Your task to perform on an android device: open chrome and create a bookmark for the current page Image 0: 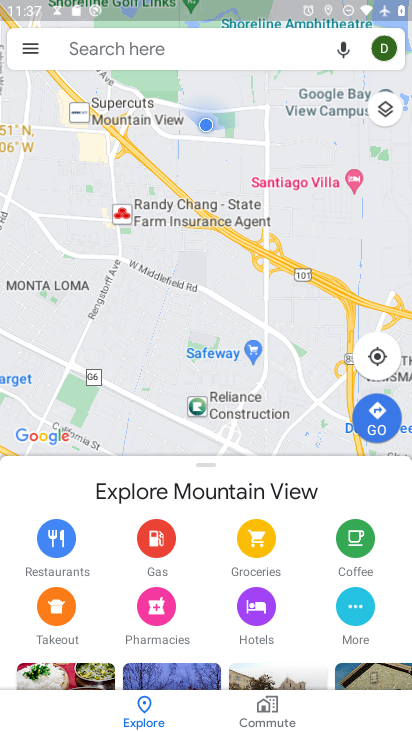
Step 0: press home button
Your task to perform on an android device: open chrome and create a bookmark for the current page Image 1: 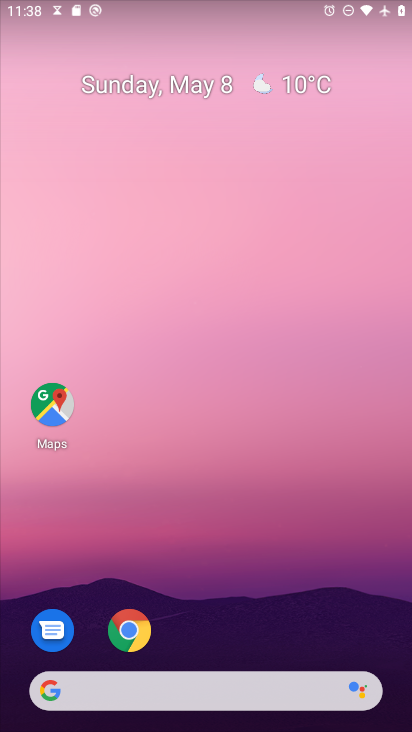
Step 1: drag from (137, 674) to (318, 171)
Your task to perform on an android device: open chrome and create a bookmark for the current page Image 2: 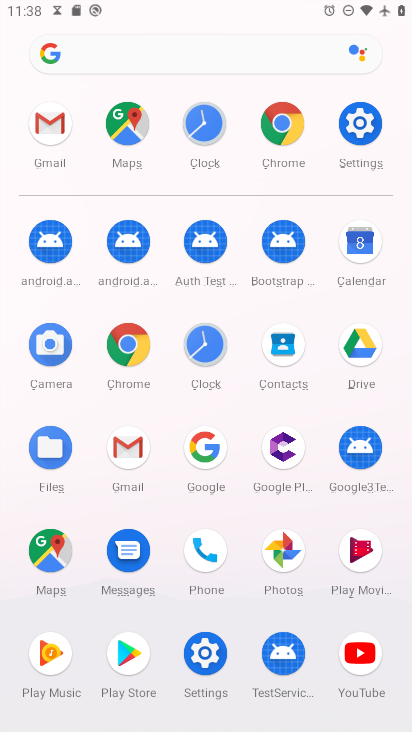
Step 2: click (285, 128)
Your task to perform on an android device: open chrome and create a bookmark for the current page Image 3: 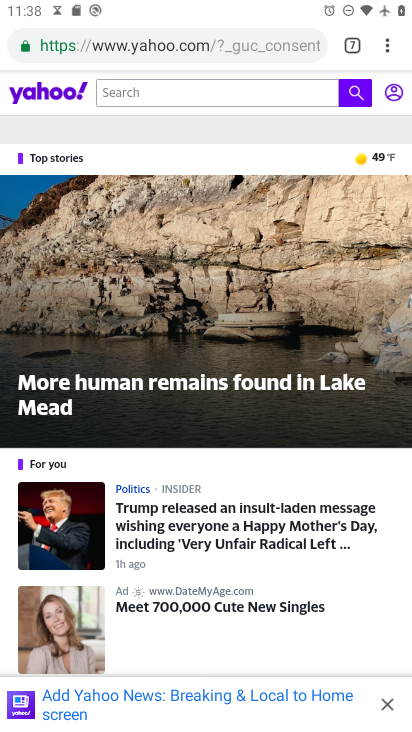
Step 3: click (384, 60)
Your task to perform on an android device: open chrome and create a bookmark for the current page Image 4: 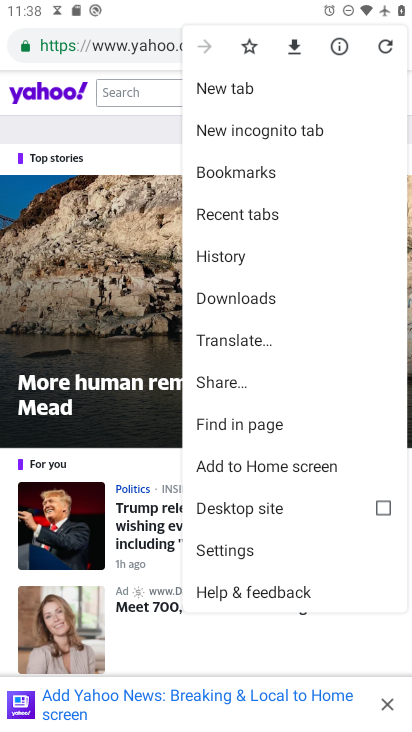
Step 4: click (249, 47)
Your task to perform on an android device: open chrome and create a bookmark for the current page Image 5: 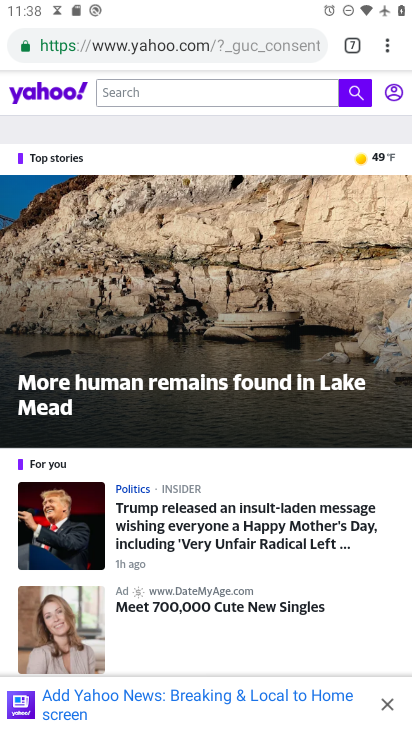
Step 5: task complete